Your task to perform on an android device: change the upload size in google photos Image 0: 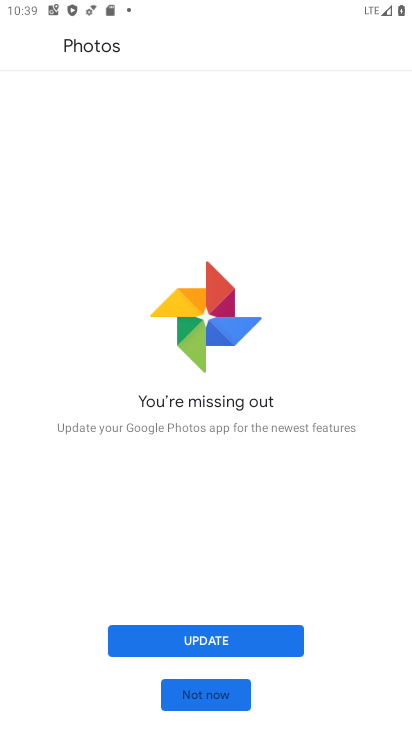
Step 0: press home button
Your task to perform on an android device: change the upload size in google photos Image 1: 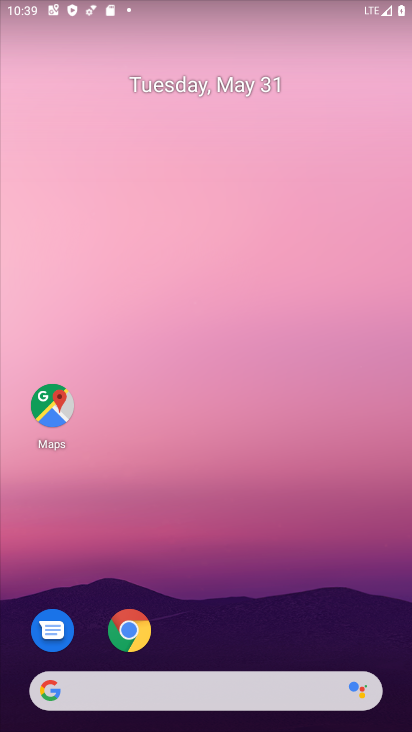
Step 1: drag from (265, 536) to (259, 30)
Your task to perform on an android device: change the upload size in google photos Image 2: 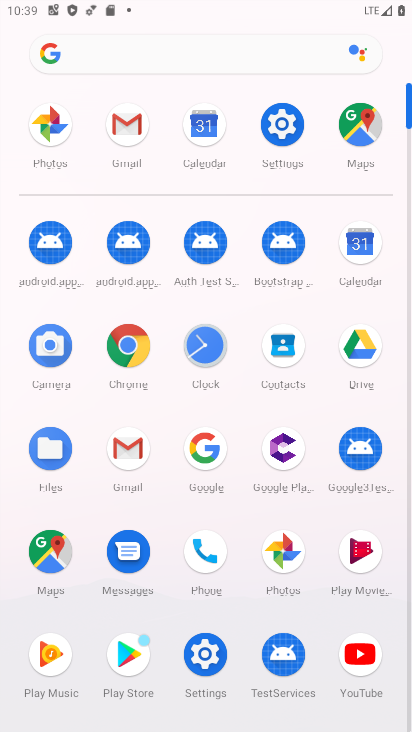
Step 2: click (54, 125)
Your task to perform on an android device: change the upload size in google photos Image 3: 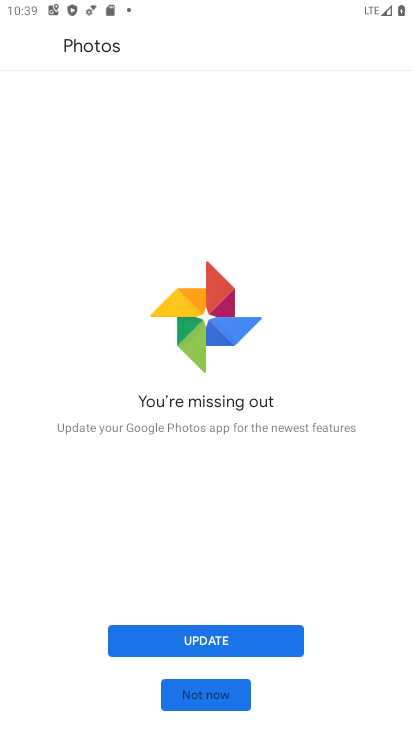
Step 3: click (276, 641)
Your task to perform on an android device: change the upload size in google photos Image 4: 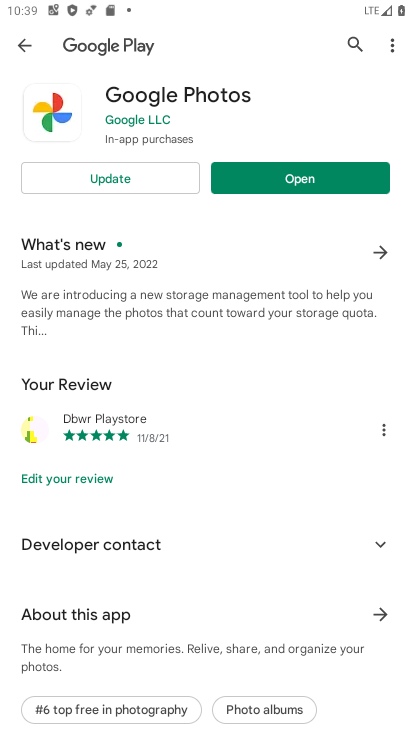
Step 4: click (137, 190)
Your task to perform on an android device: change the upload size in google photos Image 5: 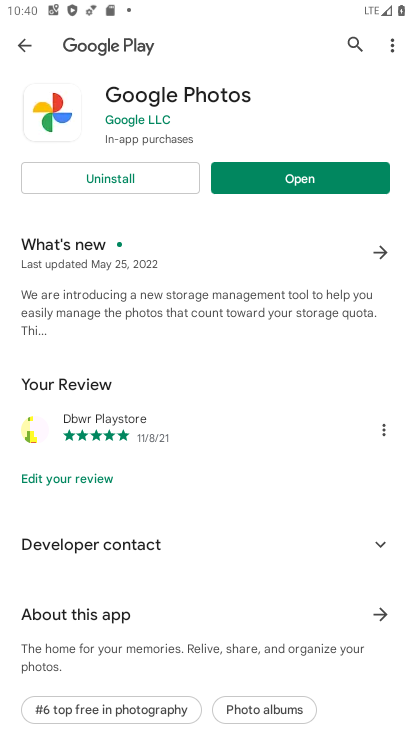
Step 5: click (299, 188)
Your task to perform on an android device: change the upload size in google photos Image 6: 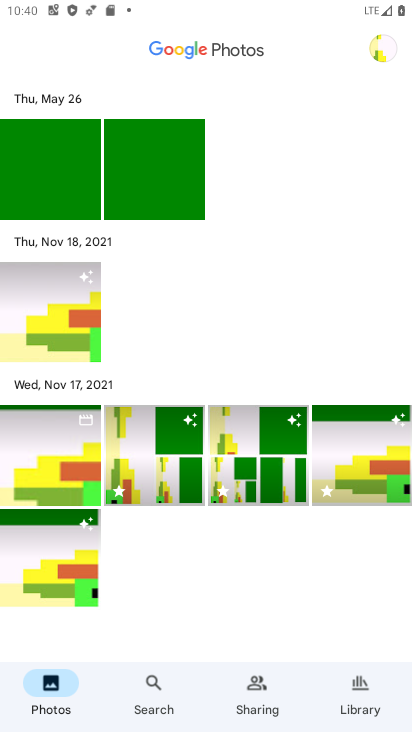
Step 6: click (375, 54)
Your task to perform on an android device: change the upload size in google photos Image 7: 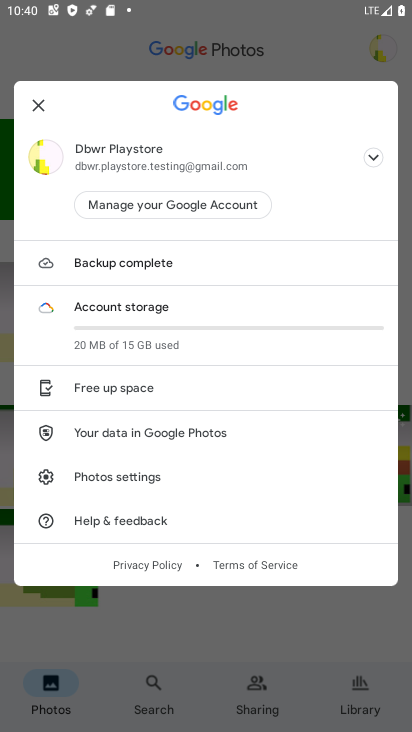
Step 7: click (134, 481)
Your task to perform on an android device: change the upload size in google photos Image 8: 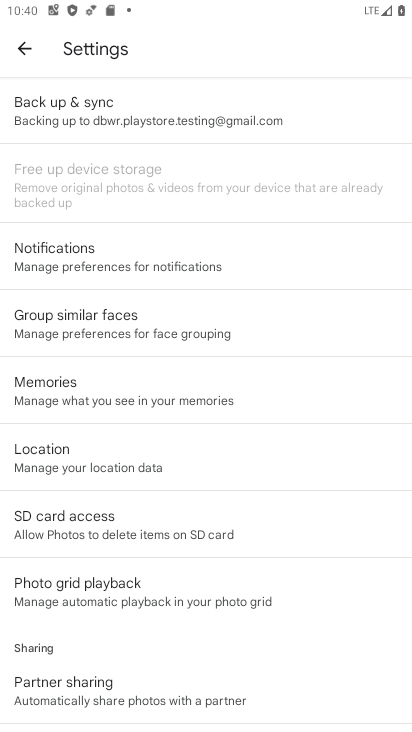
Step 8: click (90, 106)
Your task to perform on an android device: change the upload size in google photos Image 9: 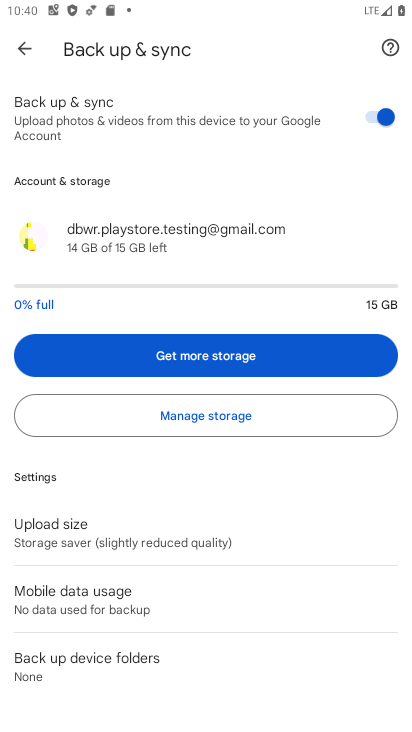
Step 9: click (162, 548)
Your task to perform on an android device: change the upload size in google photos Image 10: 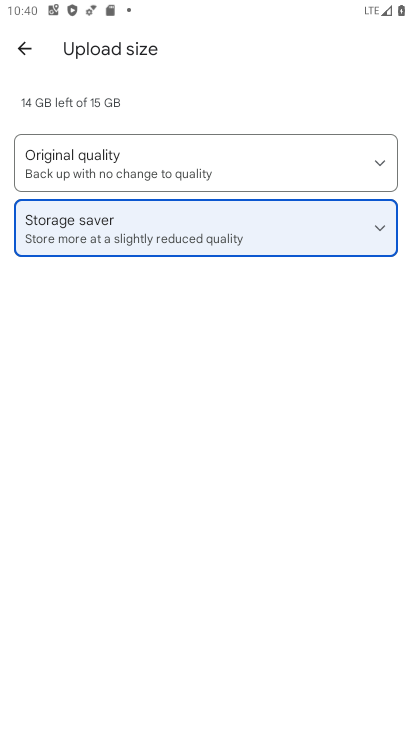
Step 10: click (84, 163)
Your task to perform on an android device: change the upload size in google photos Image 11: 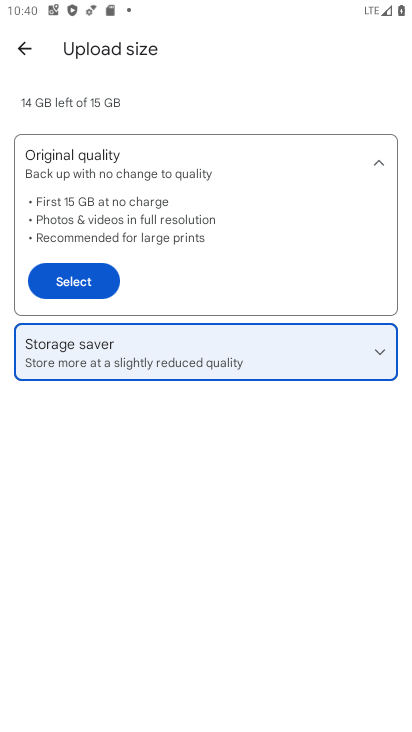
Step 11: click (84, 281)
Your task to perform on an android device: change the upload size in google photos Image 12: 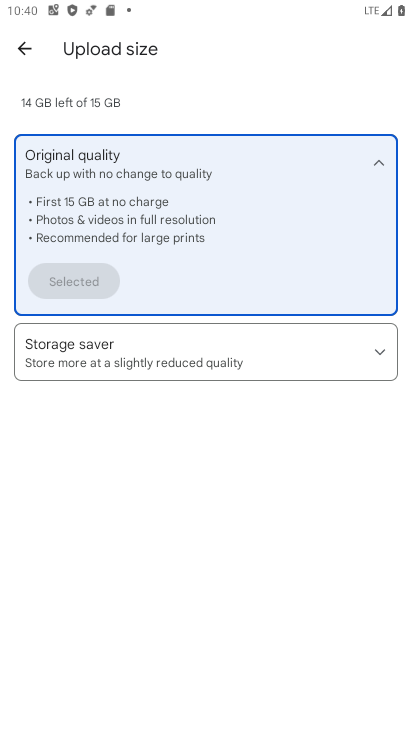
Step 12: task complete